Your task to perform on an android device: Go to ESPN.com Image 0: 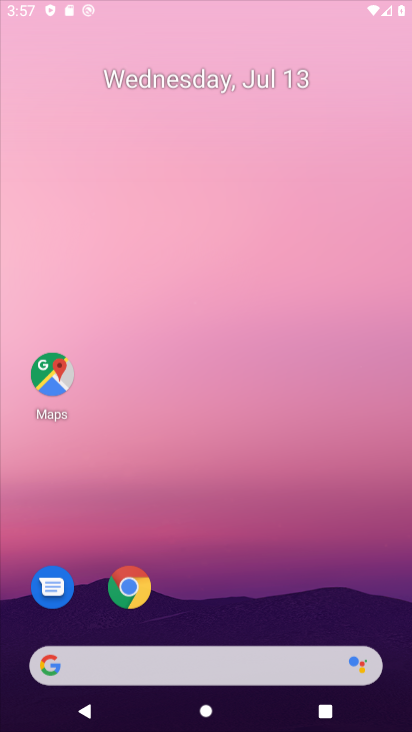
Step 0: press home button
Your task to perform on an android device: Go to ESPN.com Image 1: 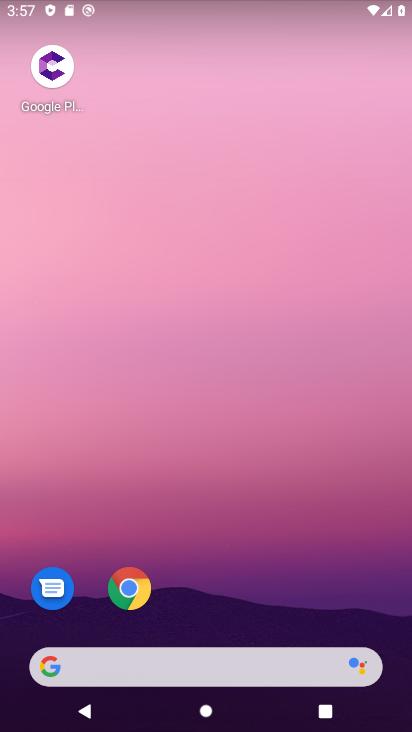
Step 1: click (164, 661)
Your task to perform on an android device: Go to ESPN.com Image 2: 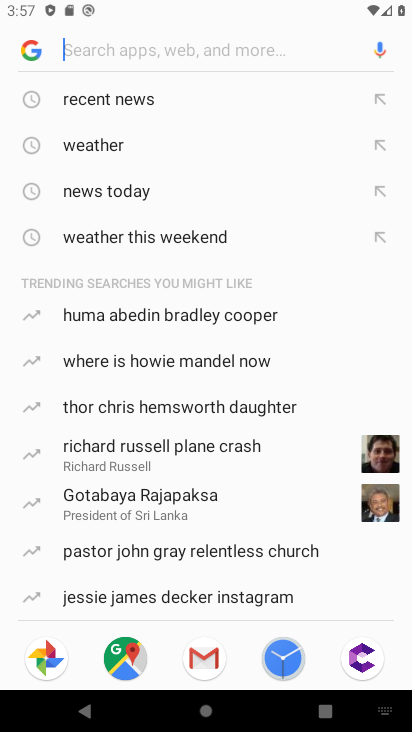
Step 2: type "ESPN.com"
Your task to perform on an android device: Go to ESPN.com Image 3: 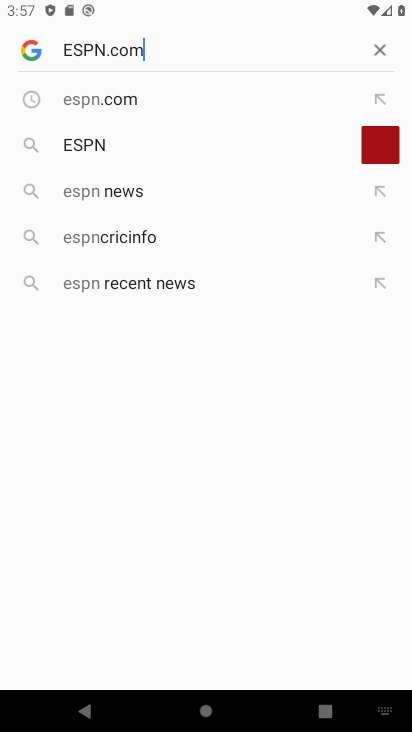
Step 3: type ""
Your task to perform on an android device: Go to ESPN.com Image 4: 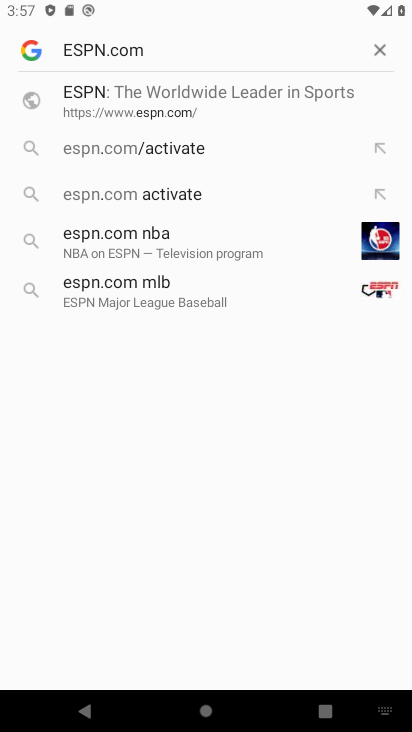
Step 4: click (95, 108)
Your task to perform on an android device: Go to ESPN.com Image 5: 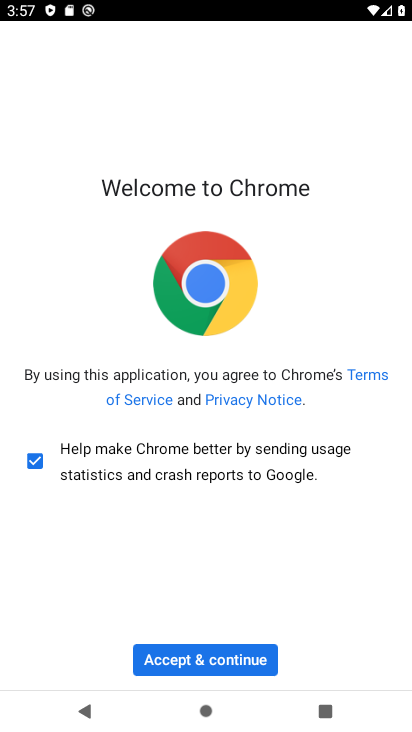
Step 5: click (206, 656)
Your task to perform on an android device: Go to ESPN.com Image 6: 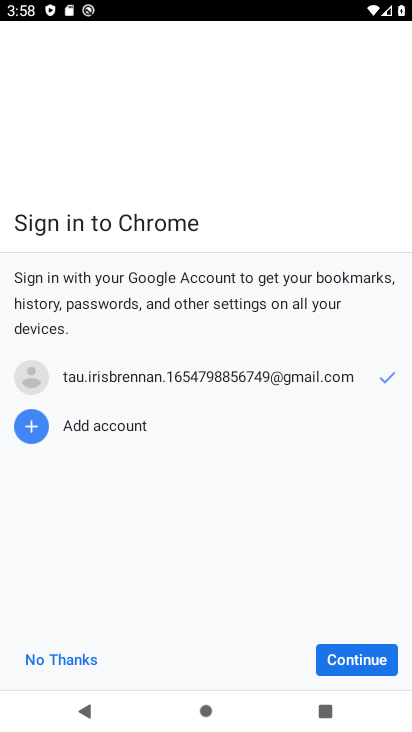
Step 6: click (352, 654)
Your task to perform on an android device: Go to ESPN.com Image 7: 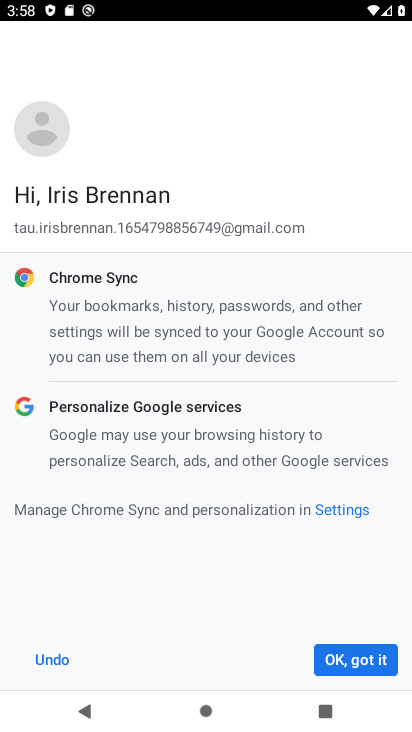
Step 7: click (348, 657)
Your task to perform on an android device: Go to ESPN.com Image 8: 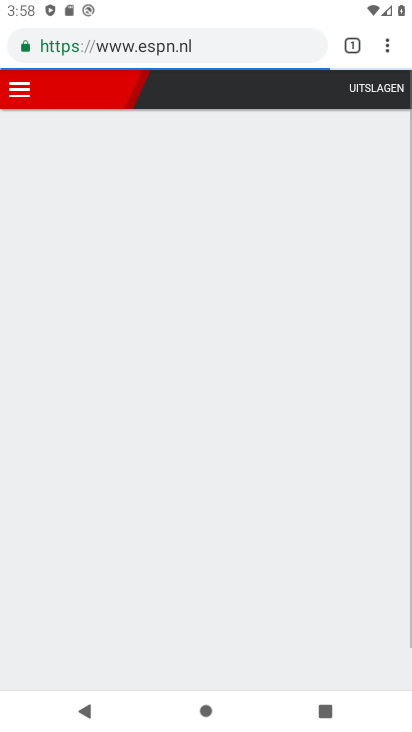
Step 8: task complete